Your task to perform on an android device: open app "Fetch Rewards" (install if not already installed) Image 0: 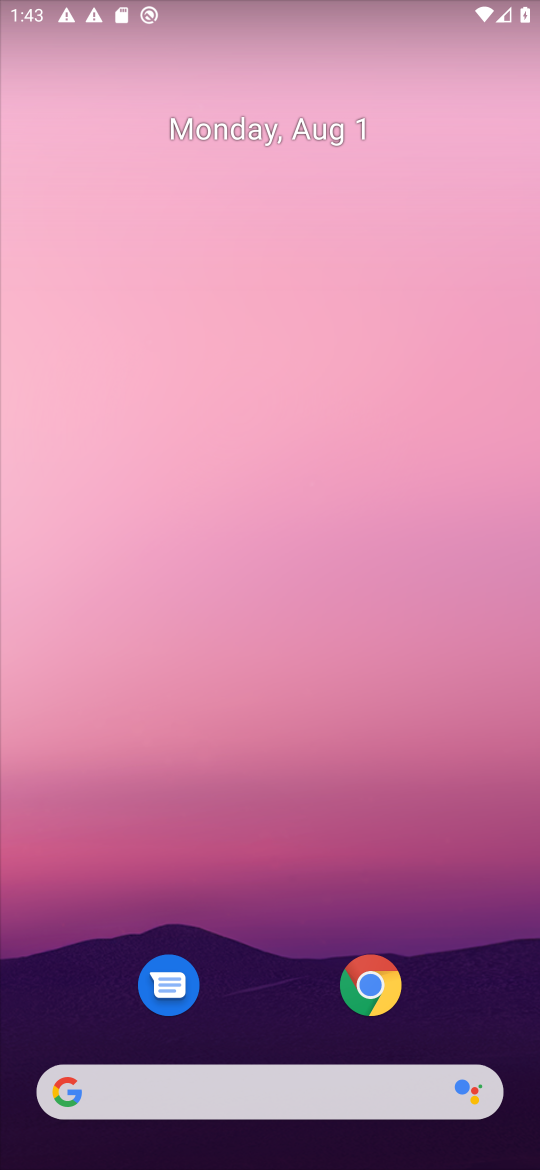
Step 0: drag from (244, 1138) to (152, 54)
Your task to perform on an android device: open app "Fetch Rewards" (install if not already installed) Image 1: 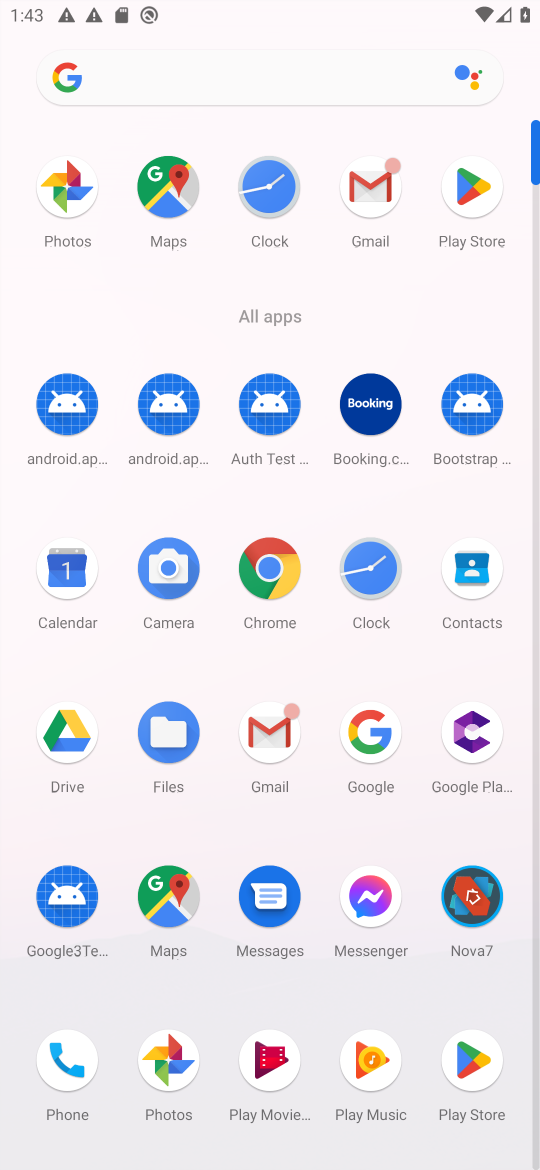
Step 1: click (467, 193)
Your task to perform on an android device: open app "Fetch Rewards" (install if not already installed) Image 2: 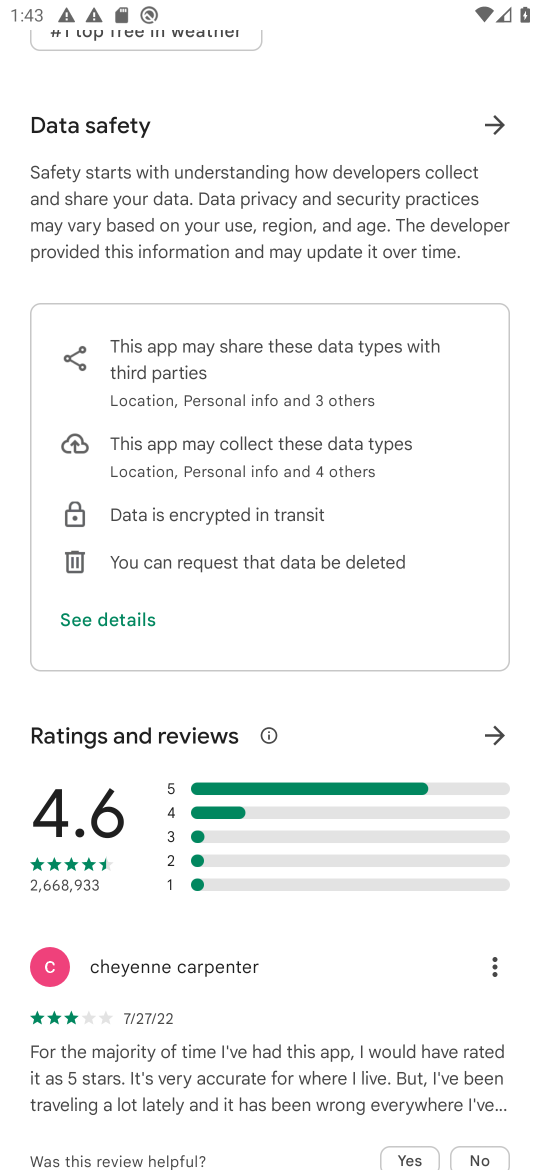
Step 2: drag from (217, 122) to (151, 910)
Your task to perform on an android device: open app "Fetch Rewards" (install if not already installed) Image 3: 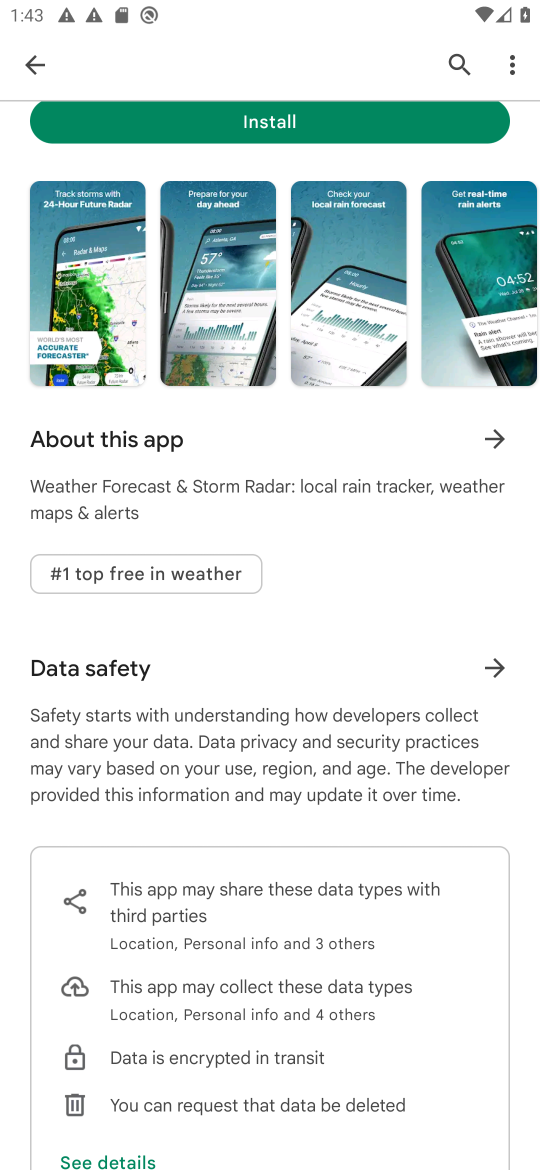
Step 3: drag from (312, 181) to (300, 913)
Your task to perform on an android device: open app "Fetch Rewards" (install if not already installed) Image 4: 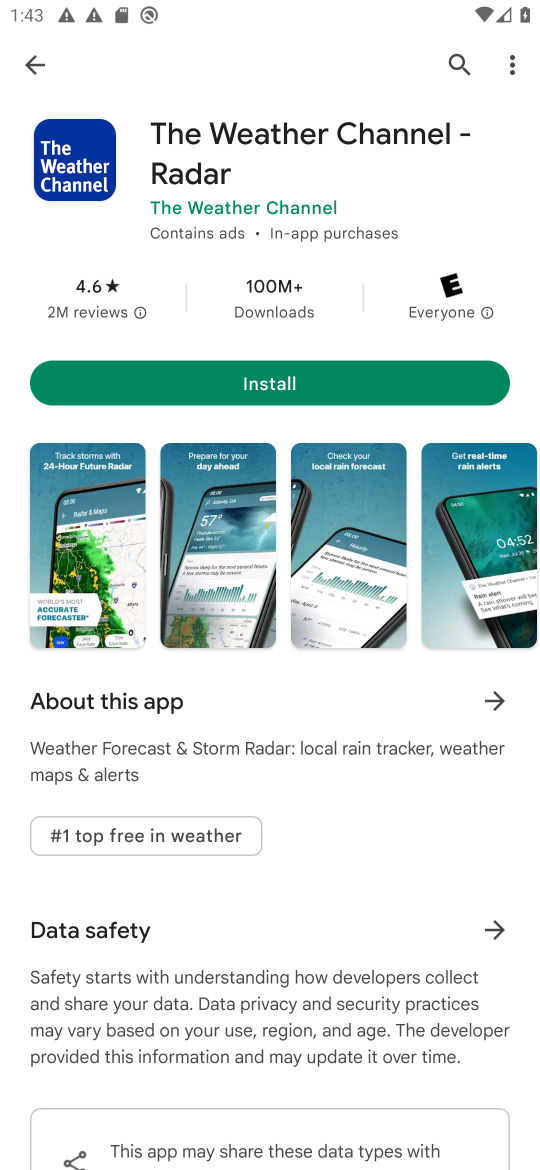
Step 4: click (454, 57)
Your task to perform on an android device: open app "Fetch Rewards" (install if not already installed) Image 5: 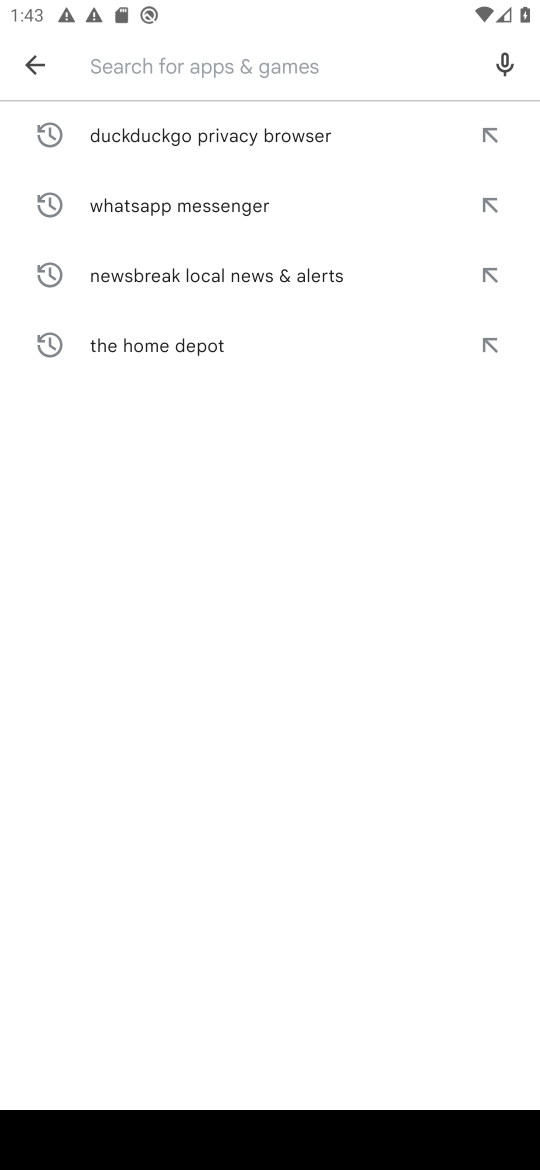
Step 5: type "Fetch Rewards"
Your task to perform on an android device: open app "Fetch Rewards" (install if not already installed) Image 6: 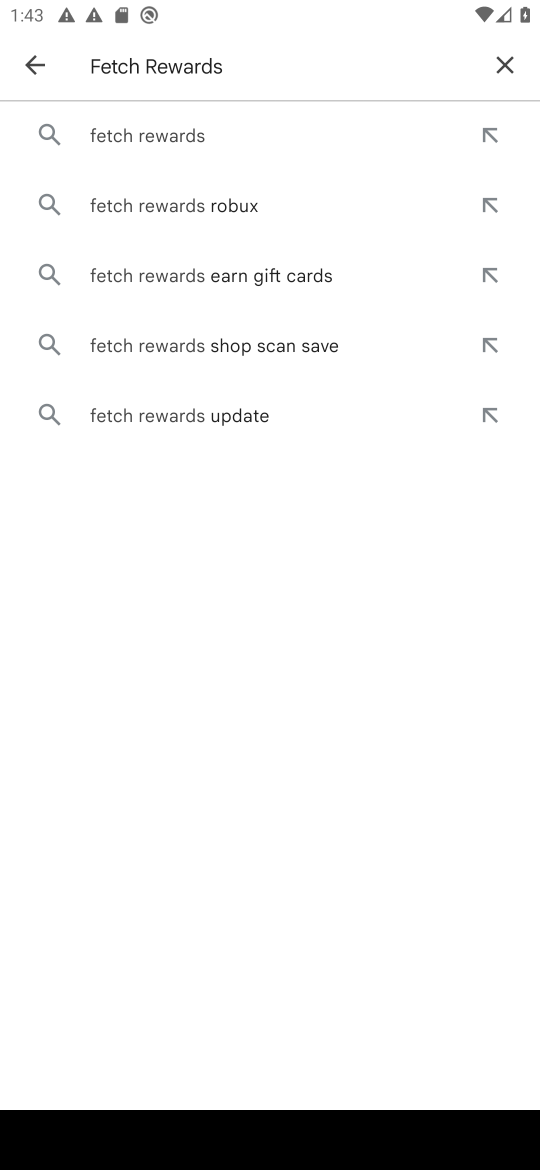
Step 6: click (166, 125)
Your task to perform on an android device: open app "Fetch Rewards" (install if not already installed) Image 7: 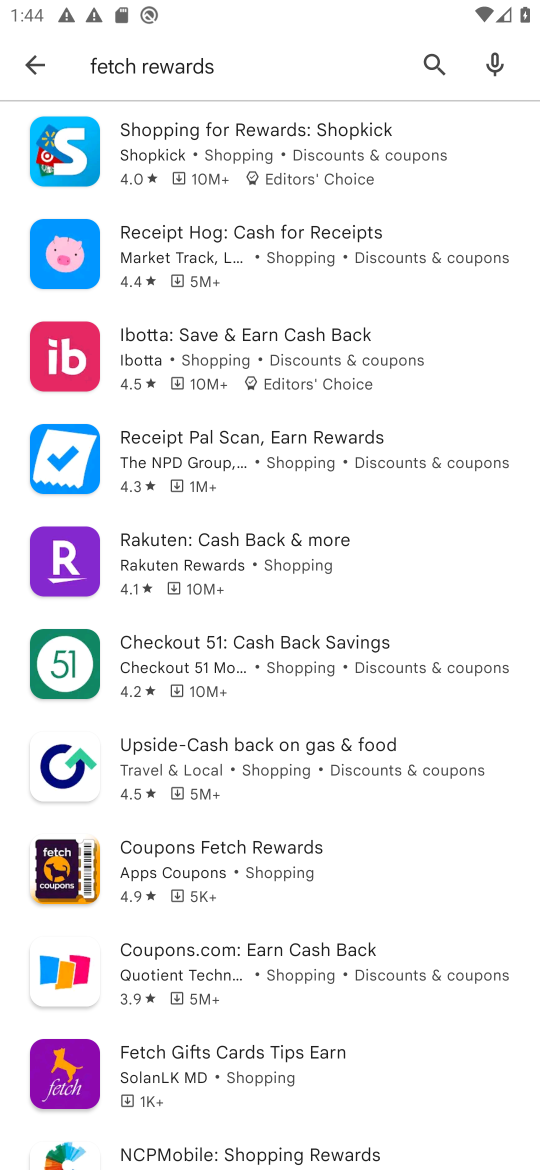
Step 7: task complete